Your task to perform on an android device: What's on Reddit this week Image 0: 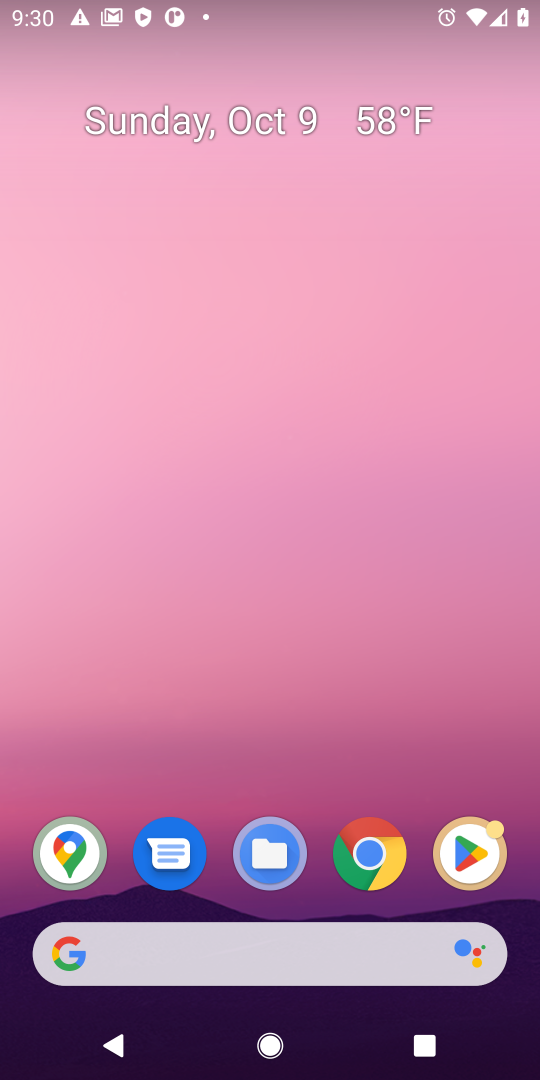
Step 0: click (462, 858)
Your task to perform on an android device: What's on Reddit this week Image 1: 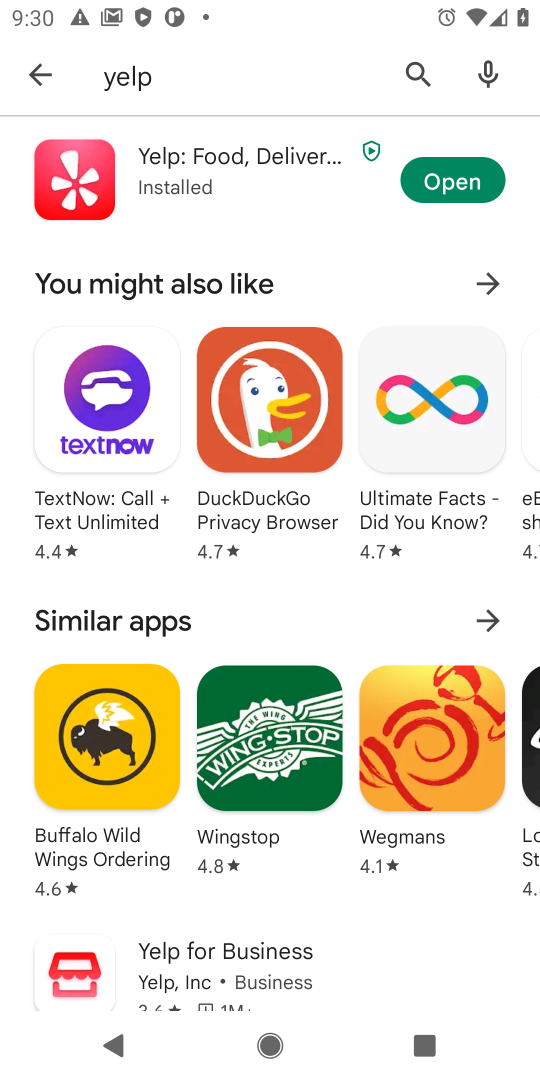
Step 1: click (424, 75)
Your task to perform on an android device: What's on Reddit this week Image 2: 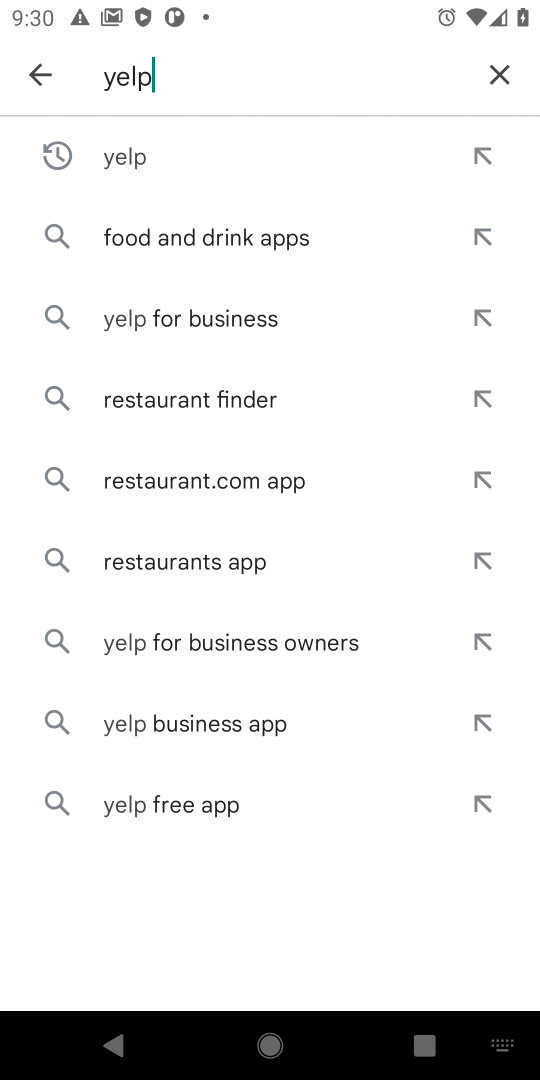
Step 2: click (500, 79)
Your task to perform on an android device: What's on Reddit this week Image 3: 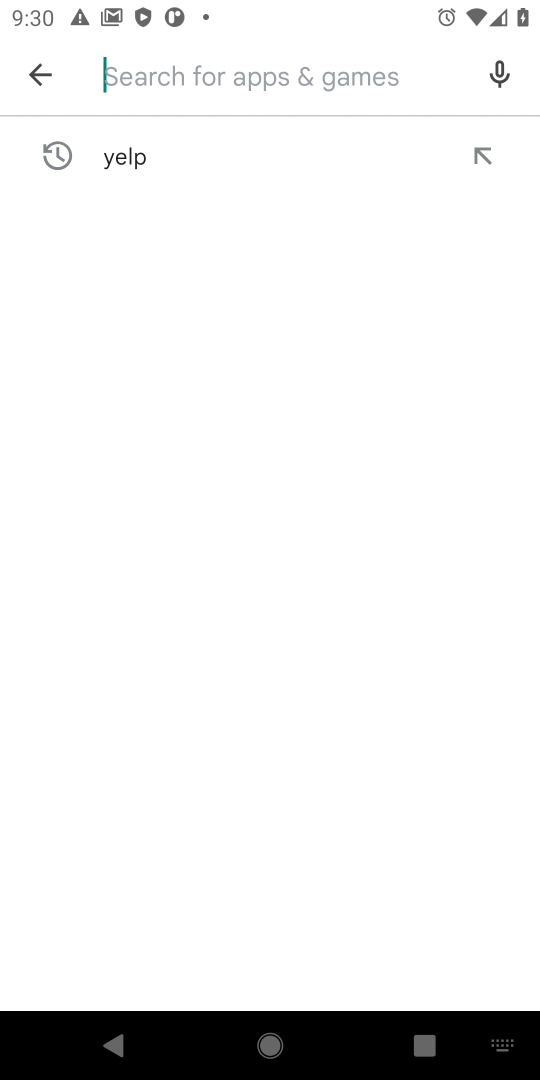
Step 3: type "reddit"
Your task to perform on an android device: What's on Reddit this week Image 4: 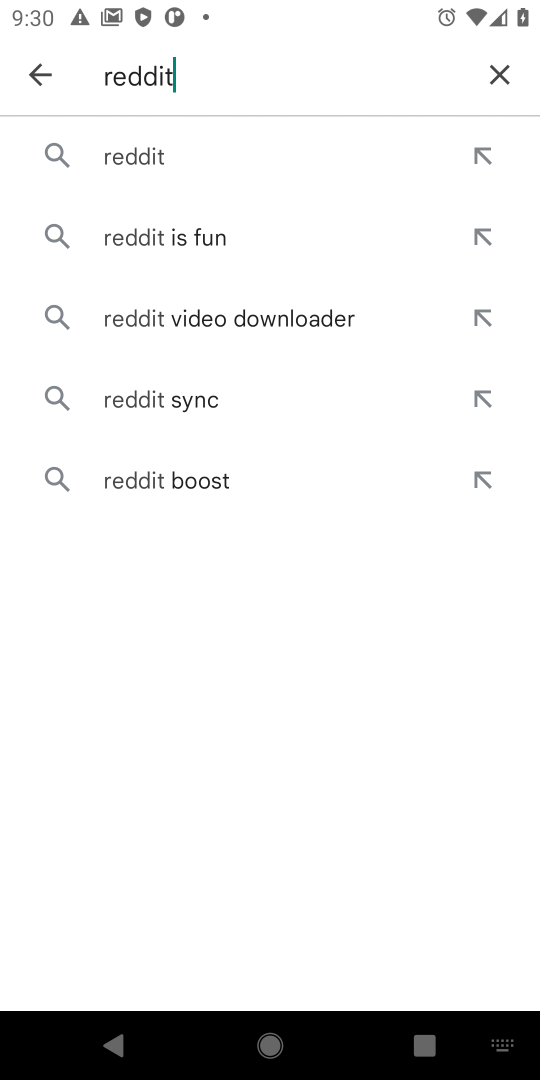
Step 4: click (271, 142)
Your task to perform on an android device: What's on Reddit this week Image 5: 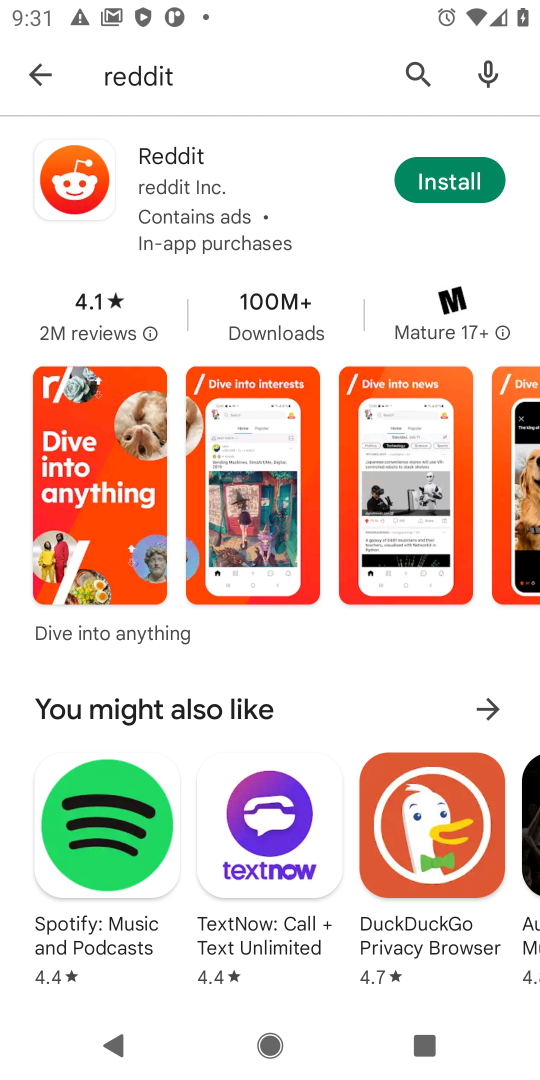
Step 5: click (453, 192)
Your task to perform on an android device: What's on Reddit this week Image 6: 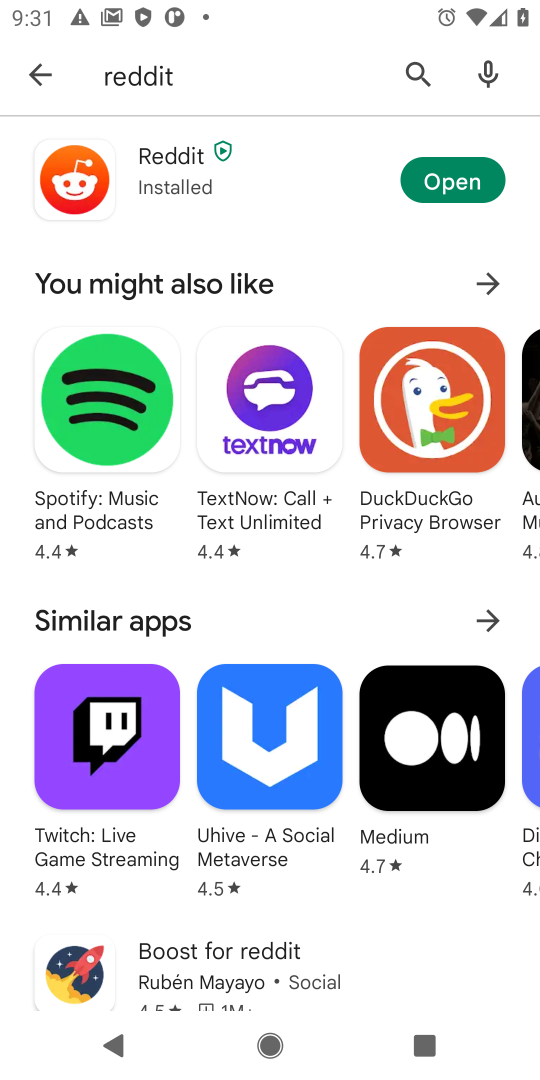
Step 6: click (451, 165)
Your task to perform on an android device: What's on Reddit this week Image 7: 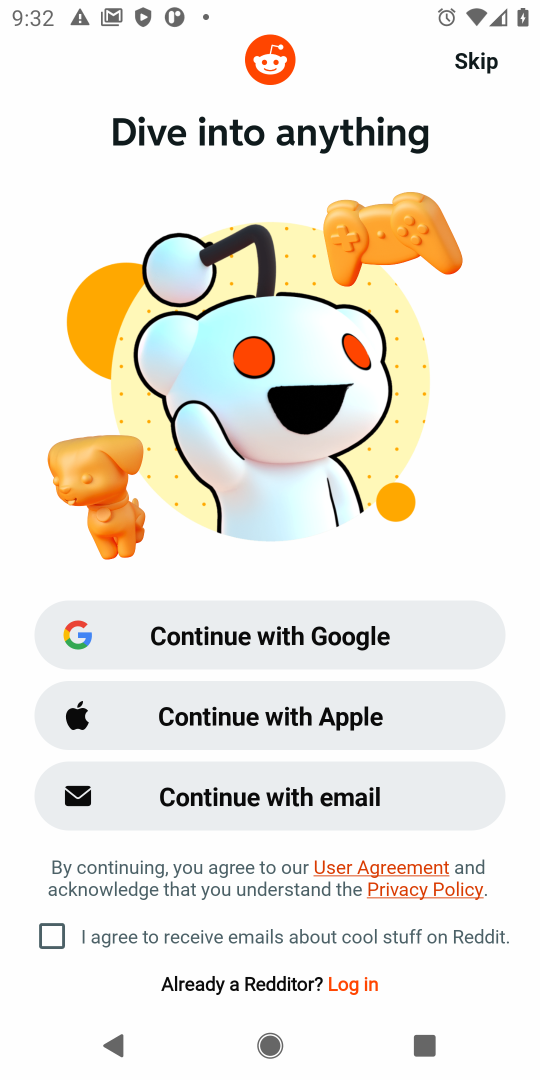
Step 7: click (472, 63)
Your task to perform on an android device: What's on Reddit this week Image 8: 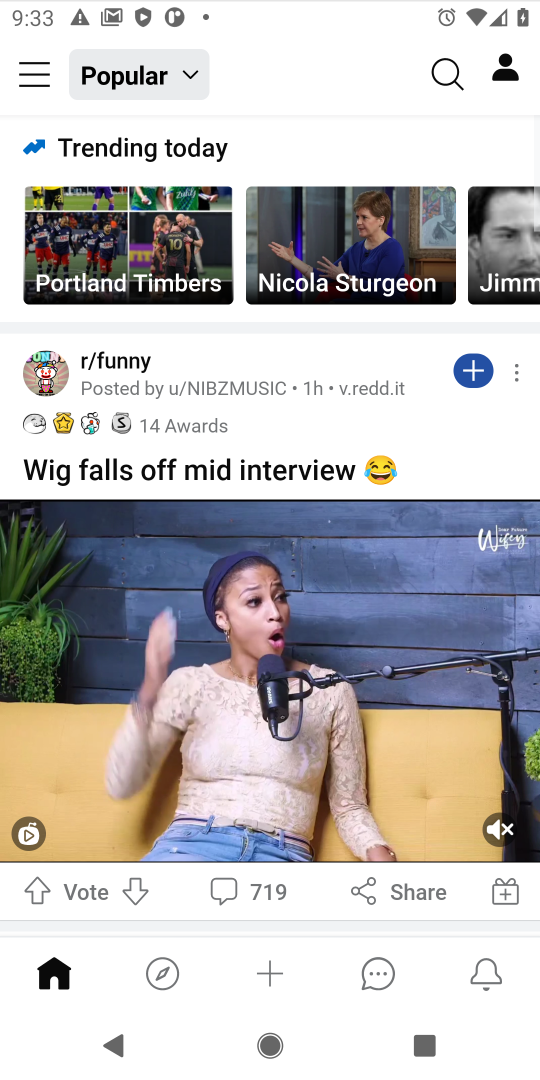
Step 8: click (170, 84)
Your task to perform on an android device: What's on Reddit this week Image 9: 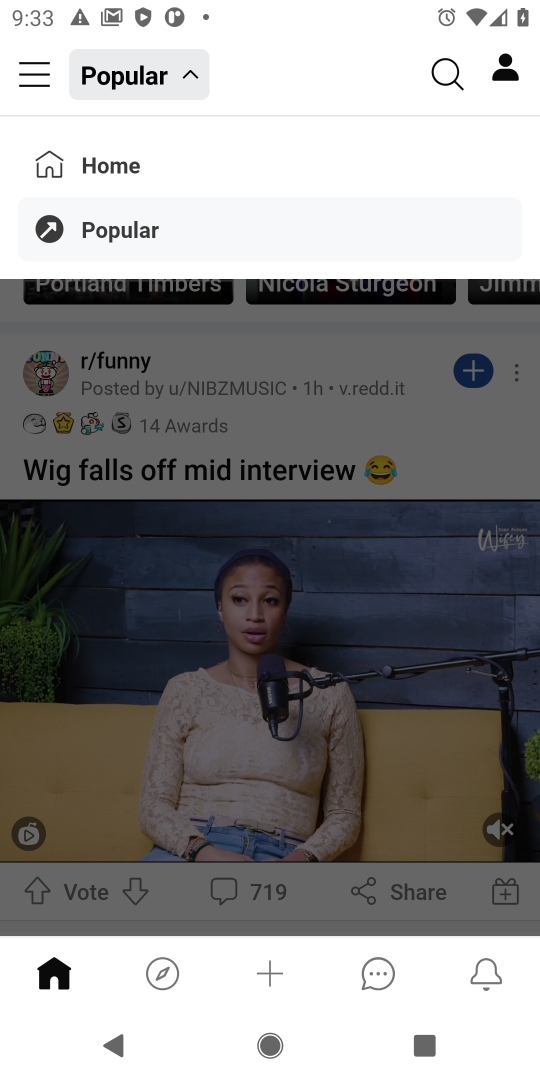
Step 9: click (129, 175)
Your task to perform on an android device: What's on Reddit this week Image 10: 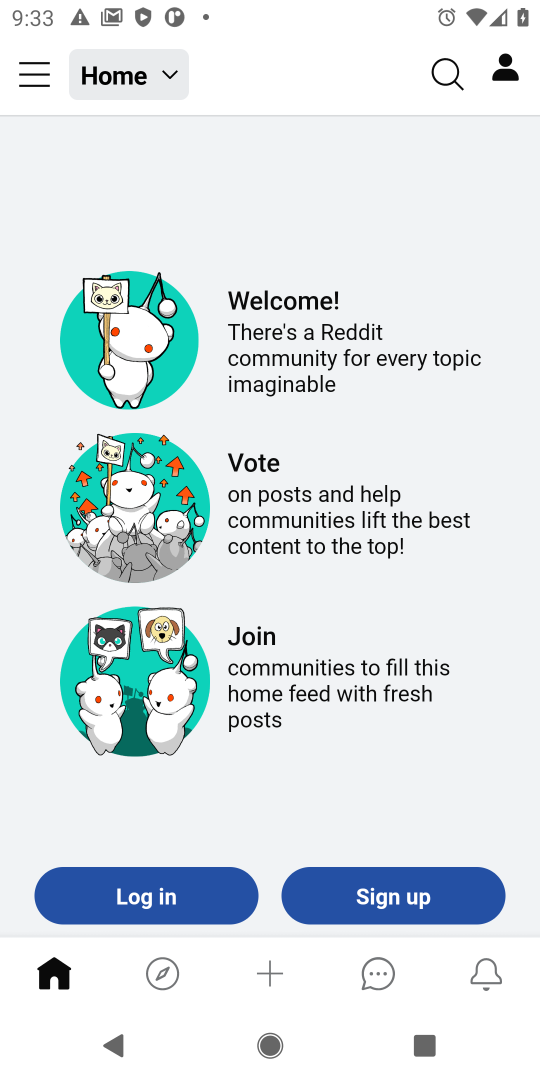
Step 10: task complete